Your task to perform on an android device: turn on the 12-hour format for clock Image 0: 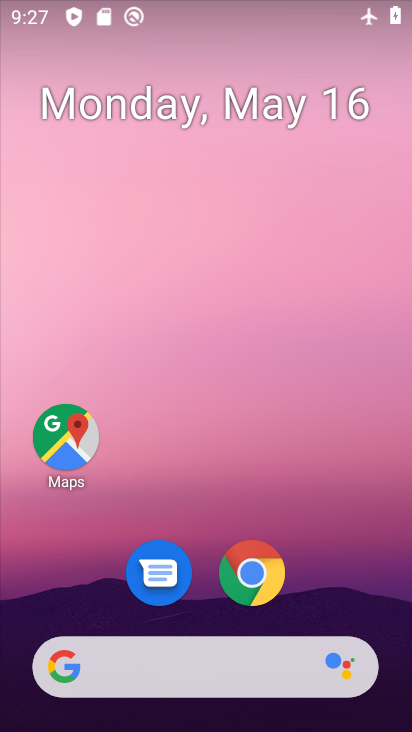
Step 0: drag from (326, 532) to (186, 35)
Your task to perform on an android device: turn on the 12-hour format for clock Image 1: 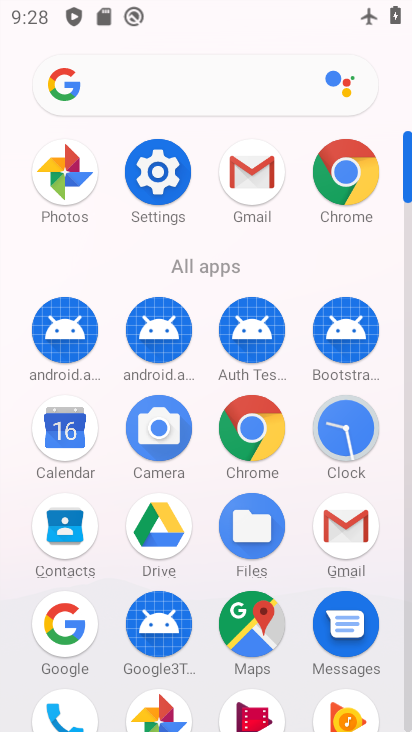
Step 1: click (350, 411)
Your task to perform on an android device: turn on the 12-hour format for clock Image 2: 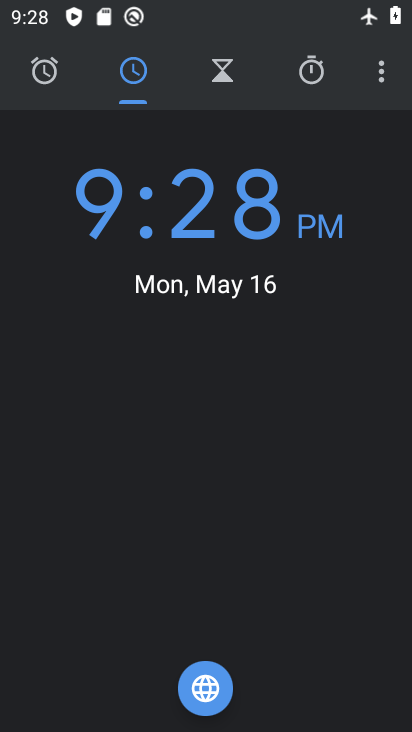
Step 2: click (381, 66)
Your task to perform on an android device: turn on the 12-hour format for clock Image 3: 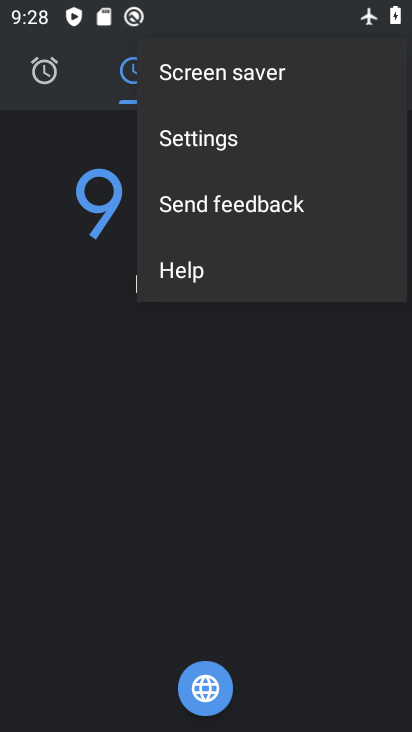
Step 3: click (194, 140)
Your task to perform on an android device: turn on the 12-hour format for clock Image 4: 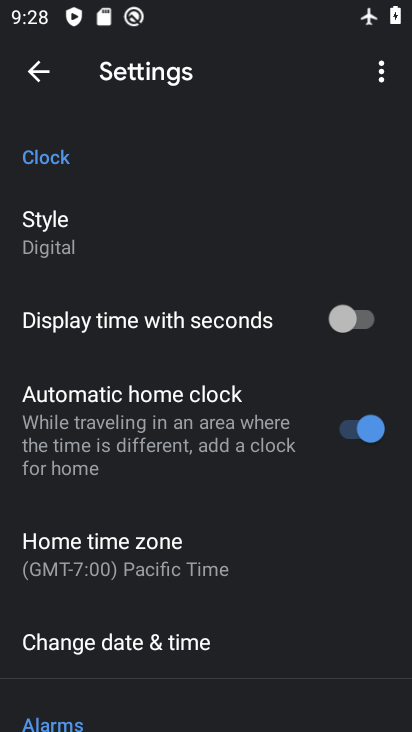
Step 4: click (131, 639)
Your task to perform on an android device: turn on the 12-hour format for clock Image 5: 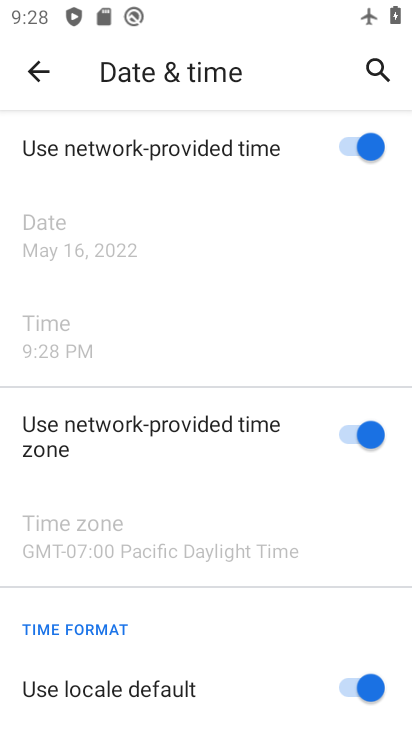
Step 5: task complete